Your task to perform on an android device: open a bookmark in the chrome app Image 0: 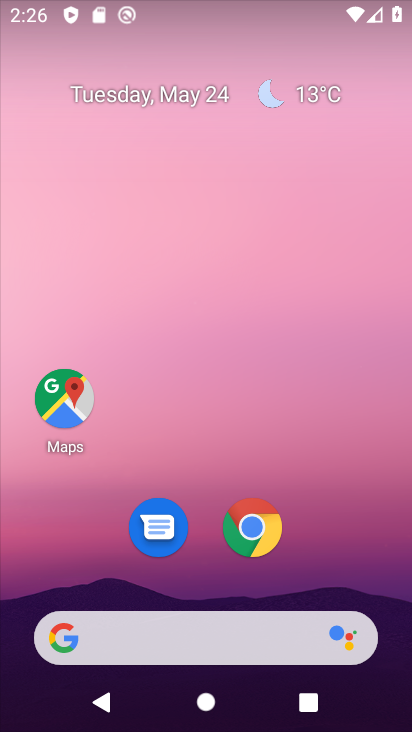
Step 0: click (252, 524)
Your task to perform on an android device: open a bookmark in the chrome app Image 1: 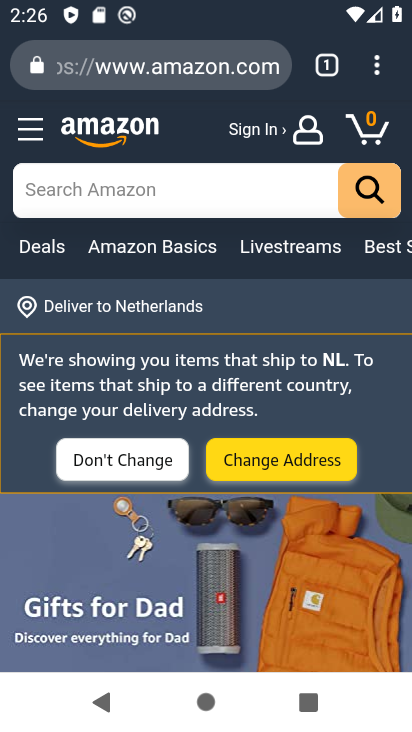
Step 1: click (374, 79)
Your task to perform on an android device: open a bookmark in the chrome app Image 2: 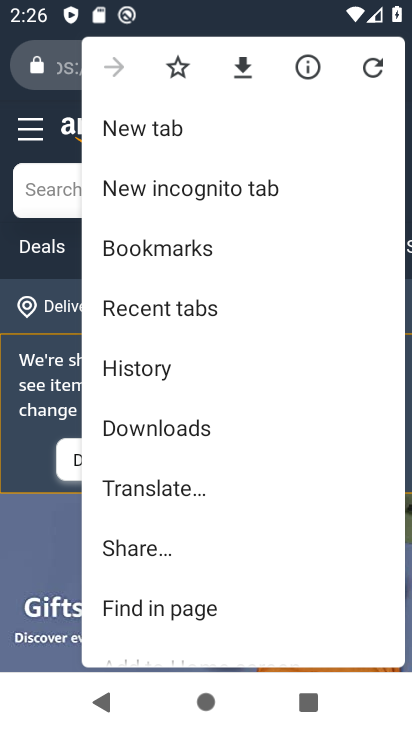
Step 2: drag from (174, 603) to (186, 387)
Your task to perform on an android device: open a bookmark in the chrome app Image 3: 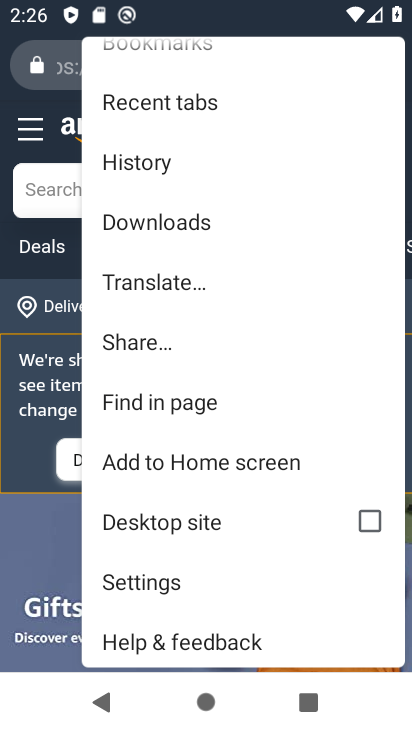
Step 3: drag from (216, 184) to (231, 398)
Your task to perform on an android device: open a bookmark in the chrome app Image 4: 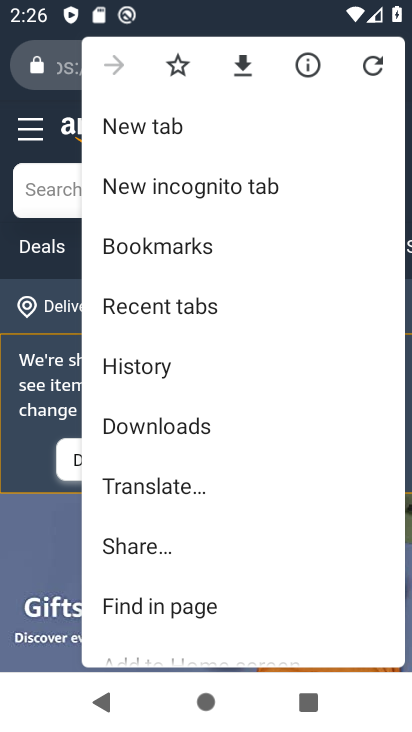
Step 4: click (182, 257)
Your task to perform on an android device: open a bookmark in the chrome app Image 5: 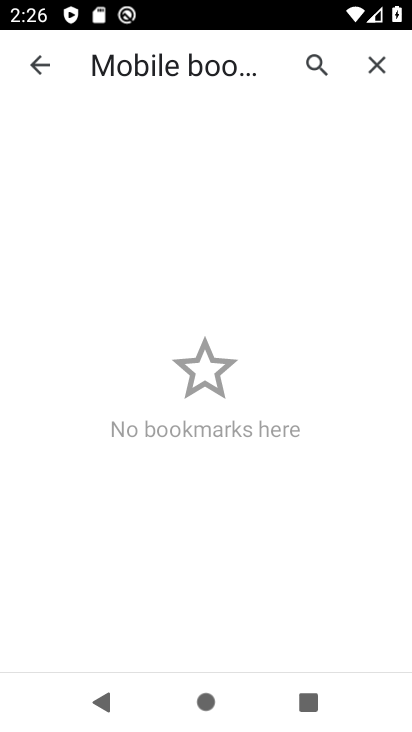
Step 5: task complete